Your task to perform on an android device: Open accessibility settings Image 0: 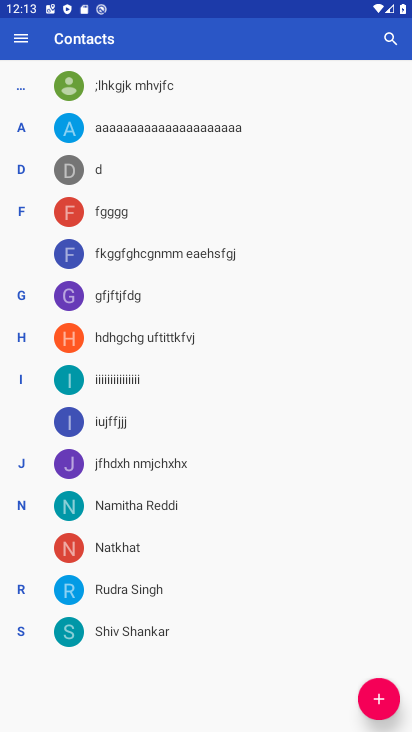
Step 0: drag from (342, 616) to (351, 172)
Your task to perform on an android device: Open accessibility settings Image 1: 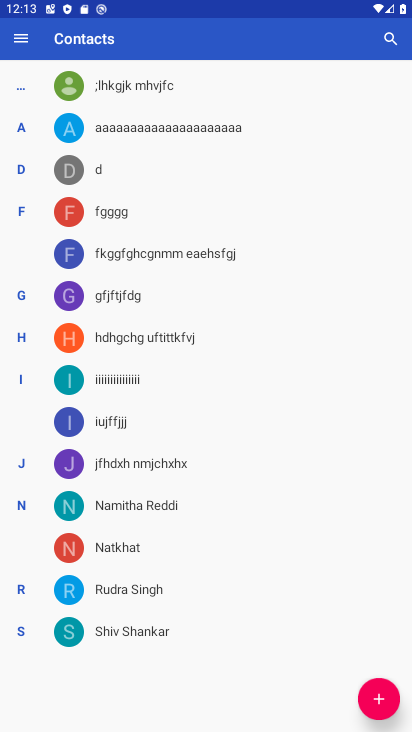
Step 1: press home button
Your task to perform on an android device: Open accessibility settings Image 2: 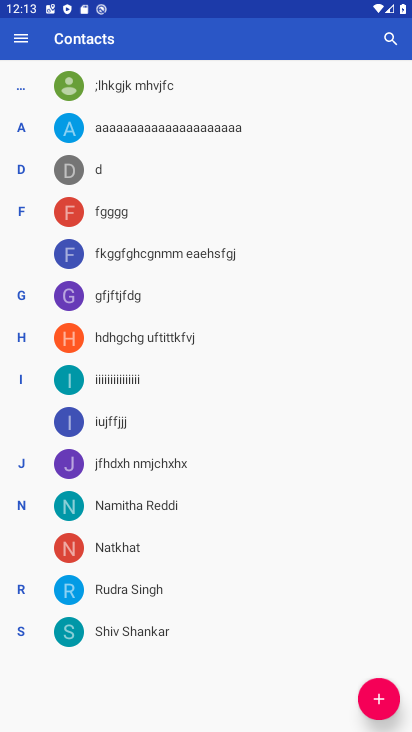
Step 2: drag from (358, 486) to (345, 178)
Your task to perform on an android device: Open accessibility settings Image 3: 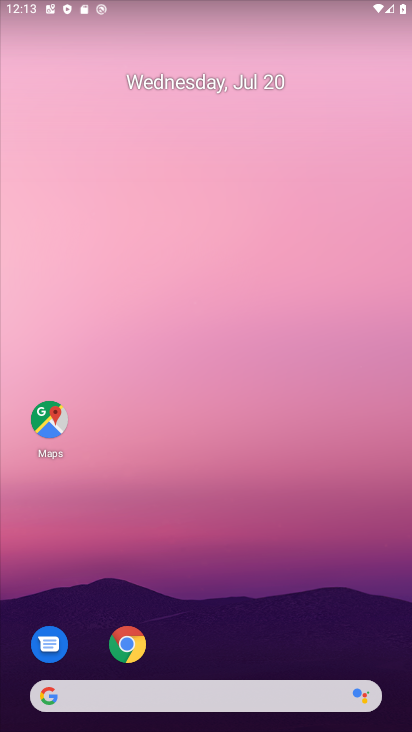
Step 3: drag from (287, 558) to (216, 87)
Your task to perform on an android device: Open accessibility settings Image 4: 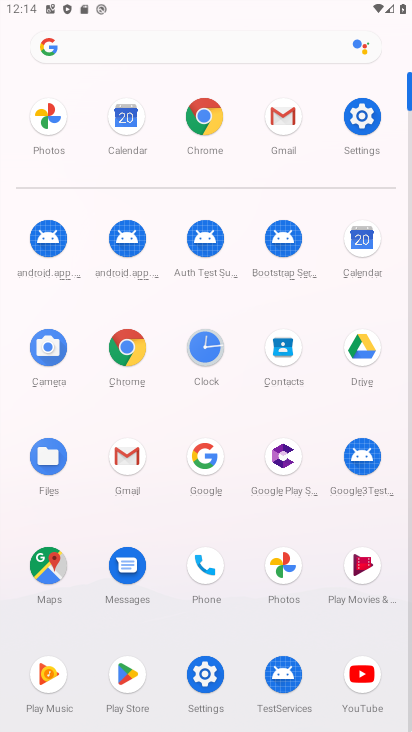
Step 4: click (205, 670)
Your task to perform on an android device: Open accessibility settings Image 5: 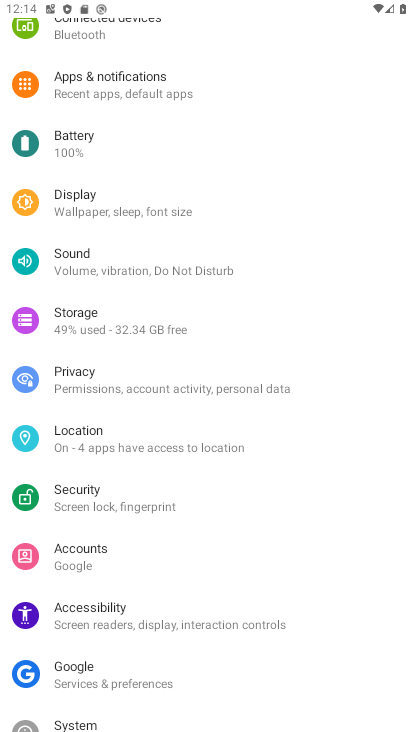
Step 5: click (116, 608)
Your task to perform on an android device: Open accessibility settings Image 6: 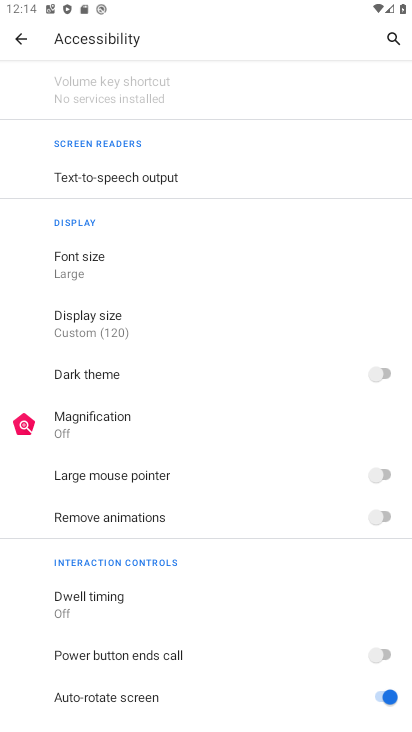
Step 6: task complete